Your task to perform on an android device: turn off location history Image 0: 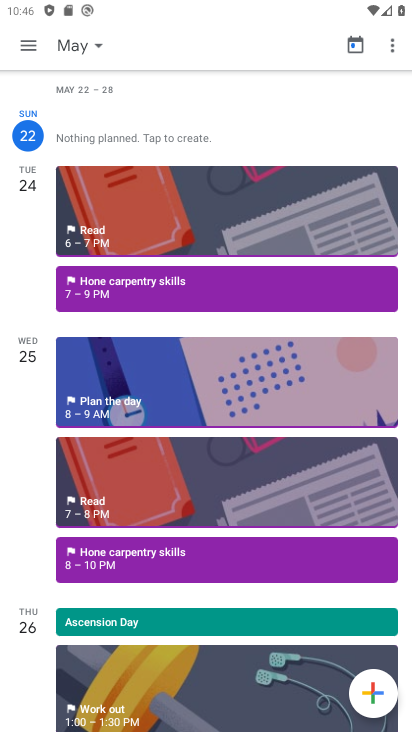
Step 0: press home button
Your task to perform on an android device: turn off location history Image 1: 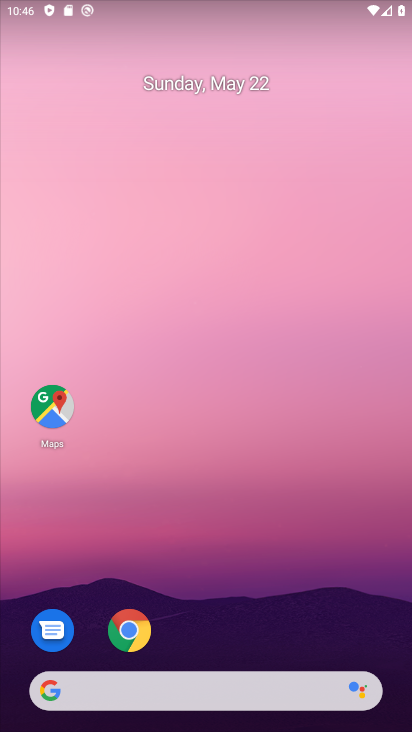
Step 1: drag from (320, 574) to (330, 215)
Your task to perform on an android device: turn off location history Image 2: 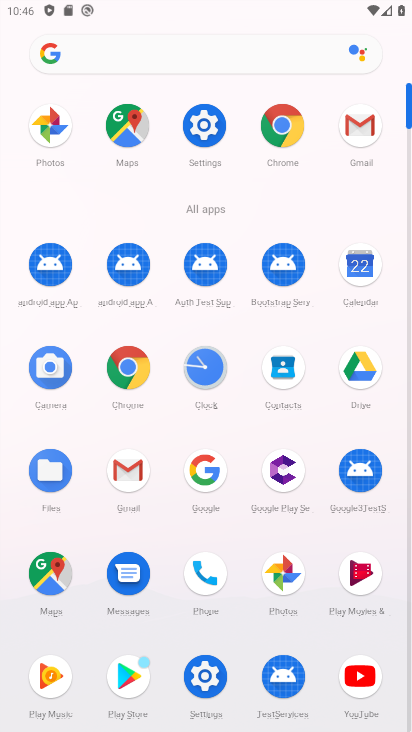
Step 2: click (198, 690)
Your task to perform on an android device: turn off location history Image 3: 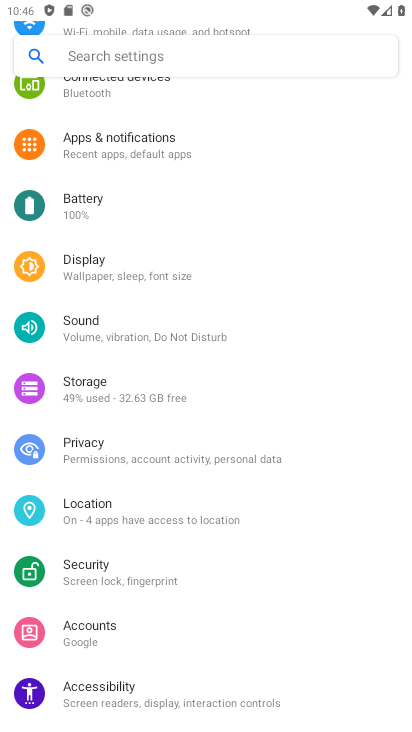
Step 3: drag from (331, 494) to (334, 426)
Your task to perform on an android device: turn off location history Image 4: 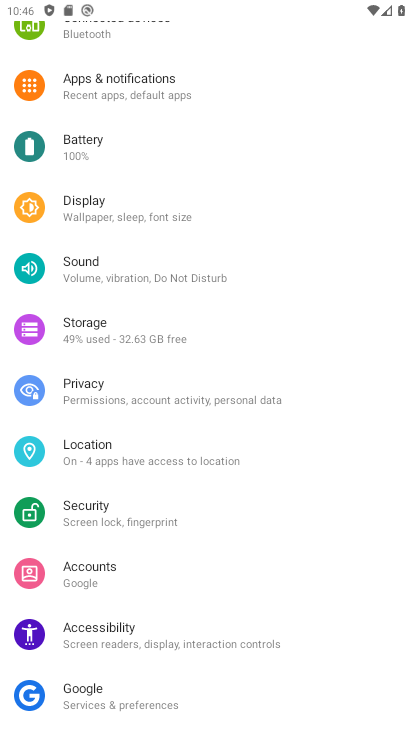
Step 4: drag from (338, 665) to (337, 541)
Your task to perform on an android device: turn off location history Image 5: 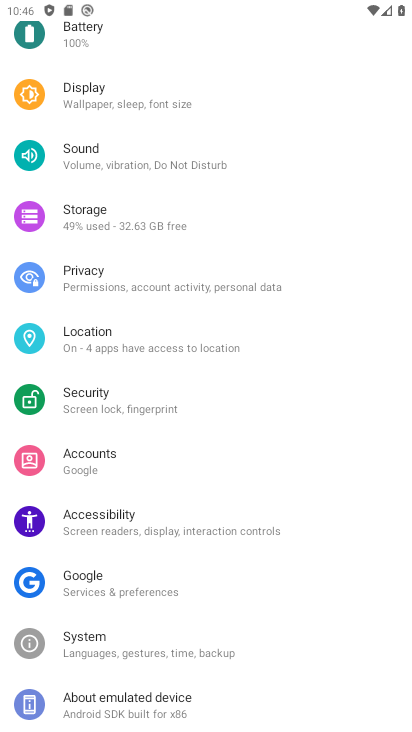
Step 5: drag from (345, 697) to (347, 555)
Your task to perform on an android device: turn off location history Image 6: 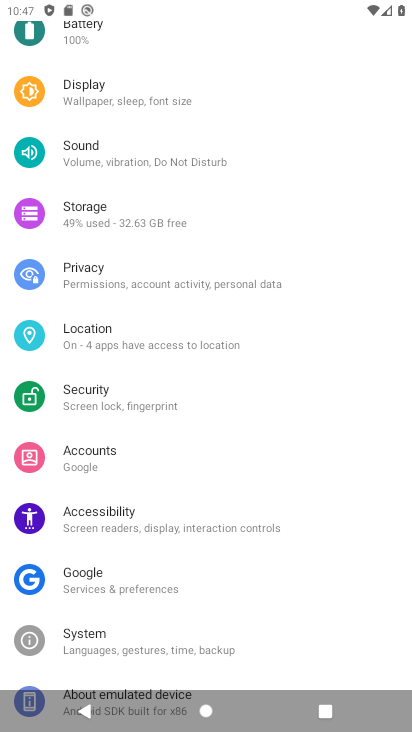
Step 6: drag from (343, 634) to (331, 472)
Your task to perform on an android device: turn off location history Image 7: 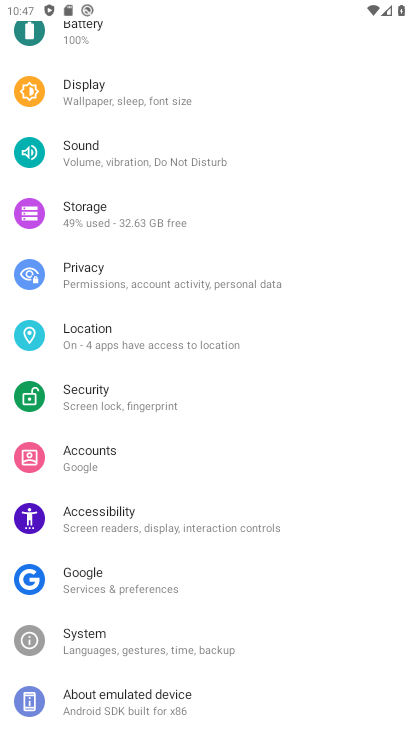
Step 7: drag from (339, 637) to (334, 495)
Your task to perform on an android device: turn off location history Image 8: 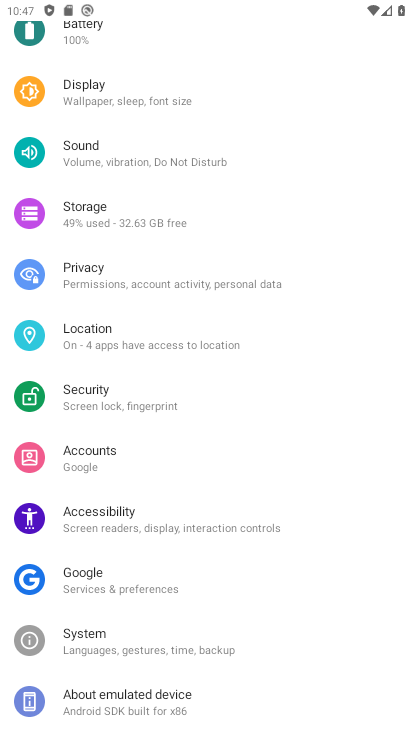
Step 8: click (193, 352)
Your task to perform on an android device: turn off location history Image 9: 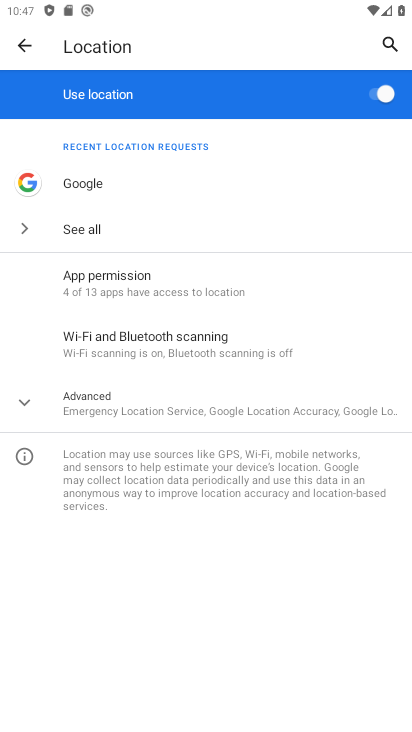
Step 9: click (218, 414)
Your task to perform on an android device: turn off location history Image 10: 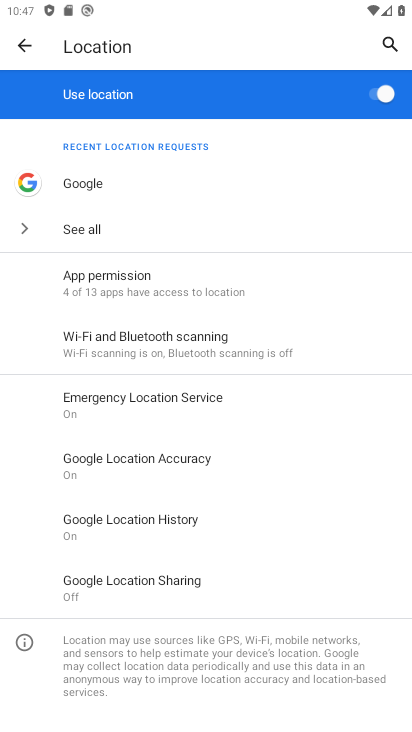
Step 10: click (174, 518)
Your task to perform on an android device: turn off location history Image 11: 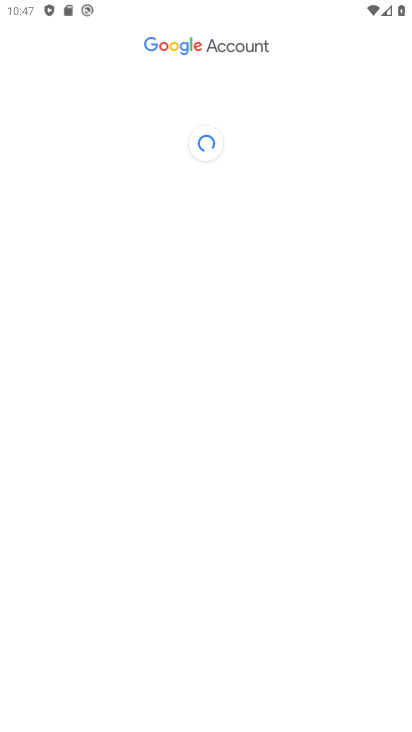
Step 11: drag from (299, 617) to (294, 460)
Your task to perform on an android device: turn off location history Image 12: 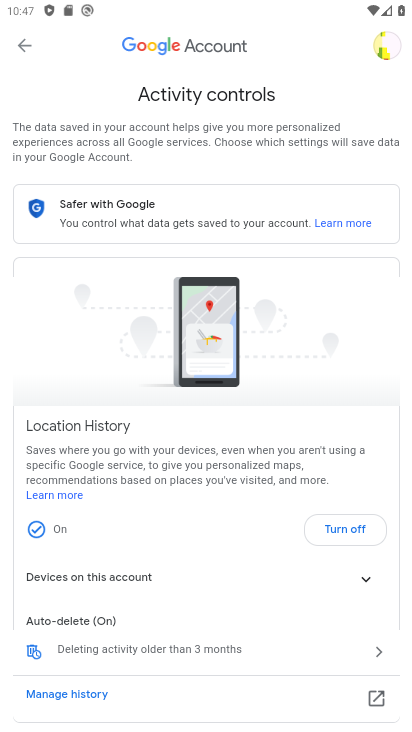
Step 12: click (340, 525)
Your task to perform on an android device: turn off location history Image 13: 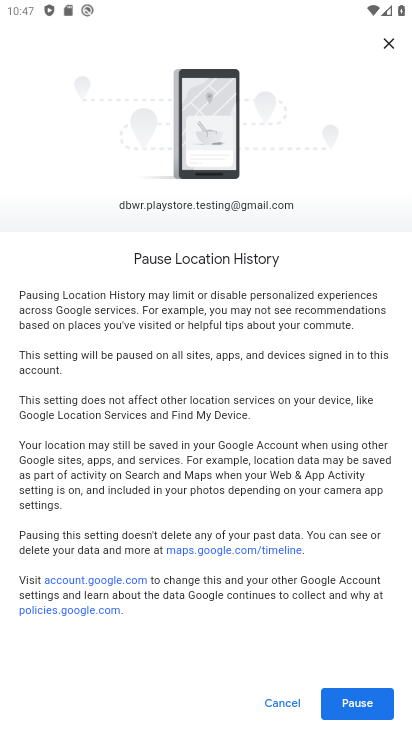
Step 13: drag from (250, 625) to (246, 517)
Your task to perform on an android device: turn off location history Image 14: 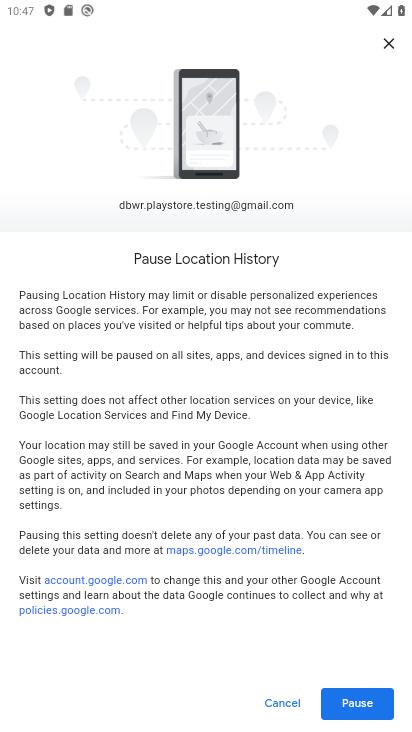
Step 14: click (355, 692)
Your task to perform on an android device: turn off location history Image 15: 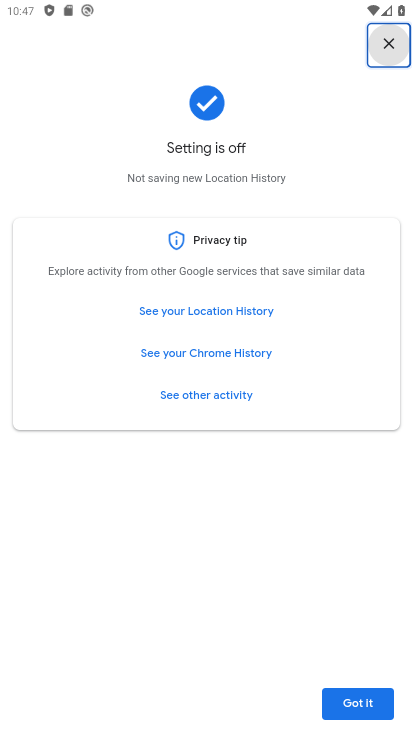
Step 15: task complete